Your task to perform on an android device: turn on showing notifications on the lock screen Image 0: 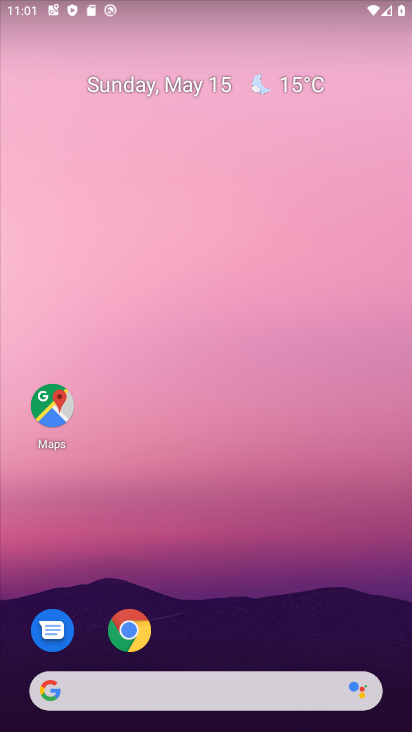
Step 0: drag from (206, 722) to (183, 246)
Your task to perform on an android device: turn on showing notifications on the lock screen Image 1: 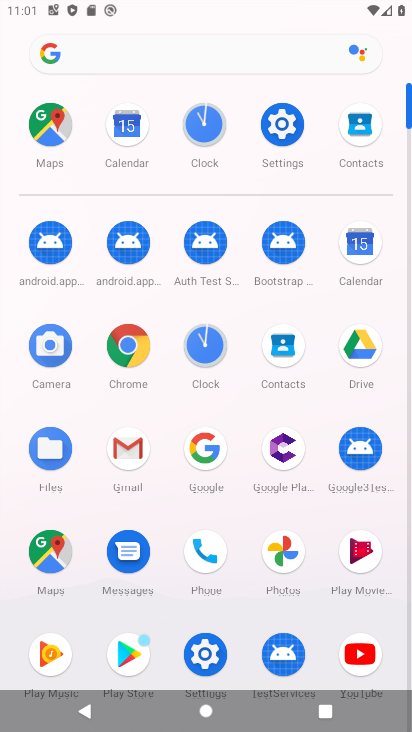
Step 1: click (284, 126)
Your task to perform on an android device: turn on showing notifications on the lock screen Image 2: 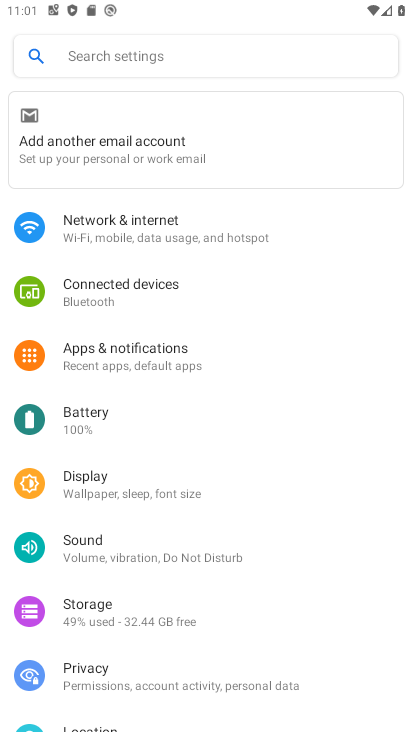
Step 2: click (144, 357)
Your task to perform on an android device: turn on showing notifications on the lock screen Image 3: 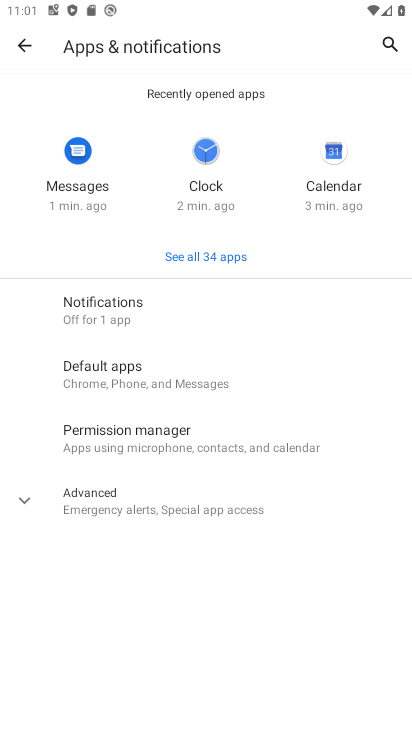
Step 3: click (74, 310)
Your task to perform on an android device: turn on showing notifications on the lock screen Image 4: 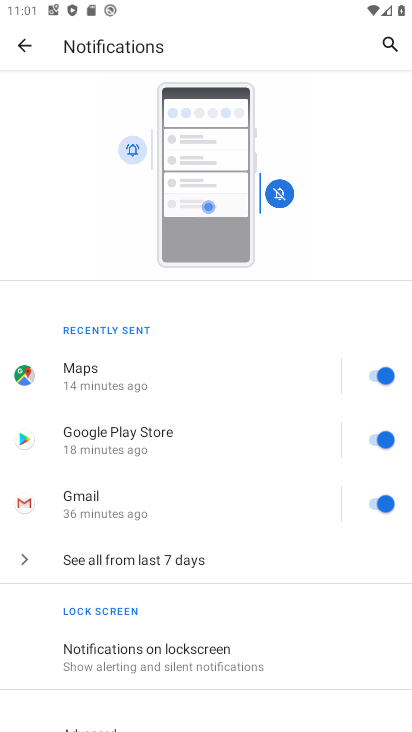
Step 4: task complete